Your task to perform on an android device: Open CNN.com Image 0: 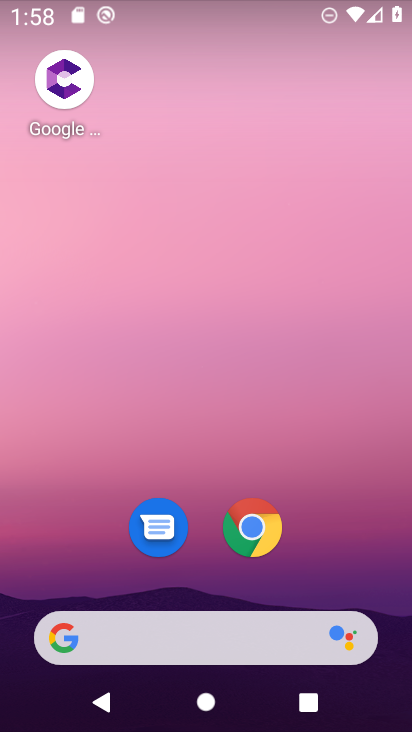
Step 0: drag from (352, 570) to (258, 5)
Your task to perform on an android device: Open CNN.com Image 1: 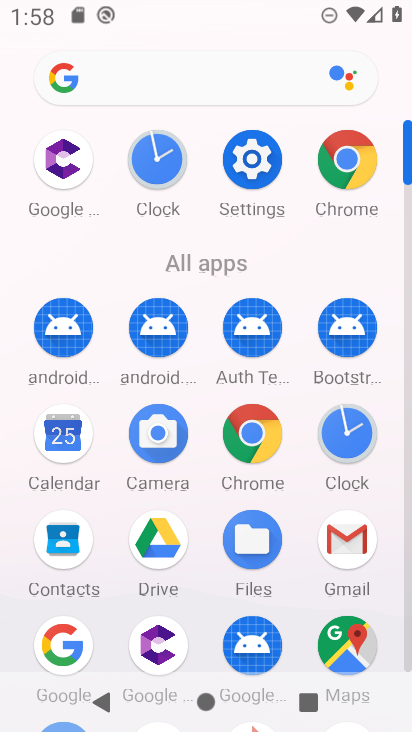
Step 1: click (350, 155)
Your task to perform on an android device: Open CNN.com Image 2: 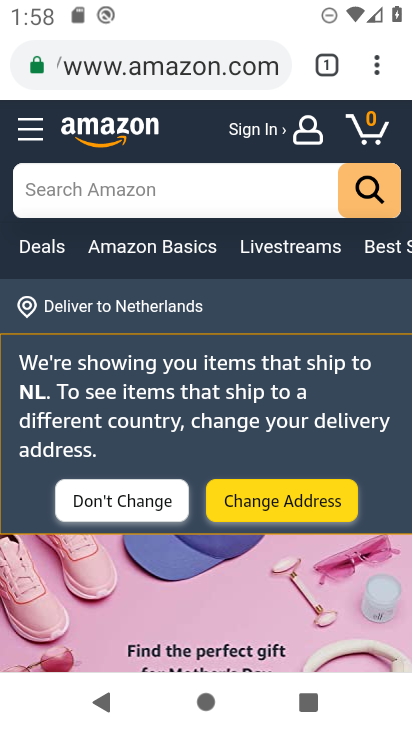
Step 2: click (203, 68)
Your task to perform on an android device: Open CNN.com Image 3: 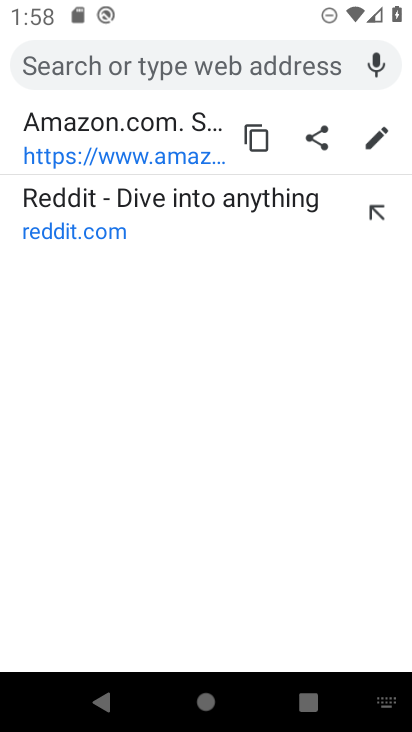
Step 3: type "CNN.com"
Your task to perform on an android device: Open CNN.com Image 4: 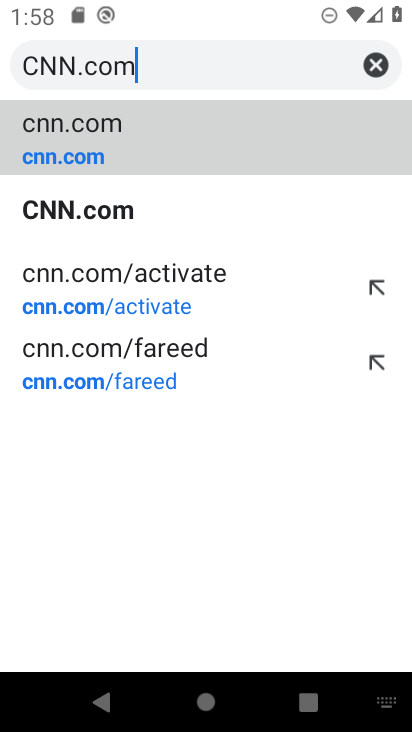
Step 4: click (139, 121)
Your task to perform on an android device: Open CNN.com Image 5: 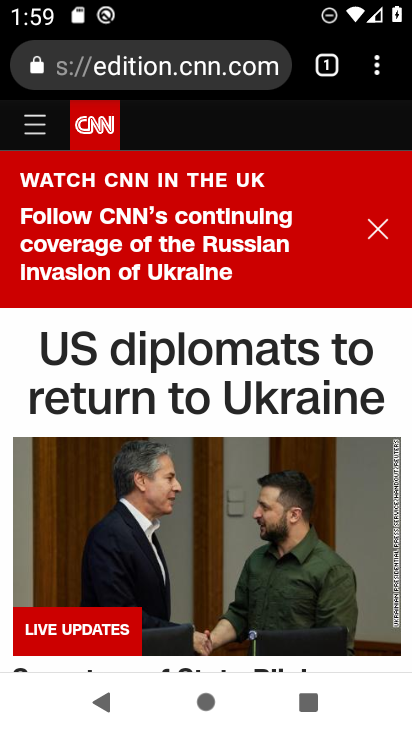
Step 5: task complete